Your task to perform on an android device: Is it going to rain this weekend? Image 0: 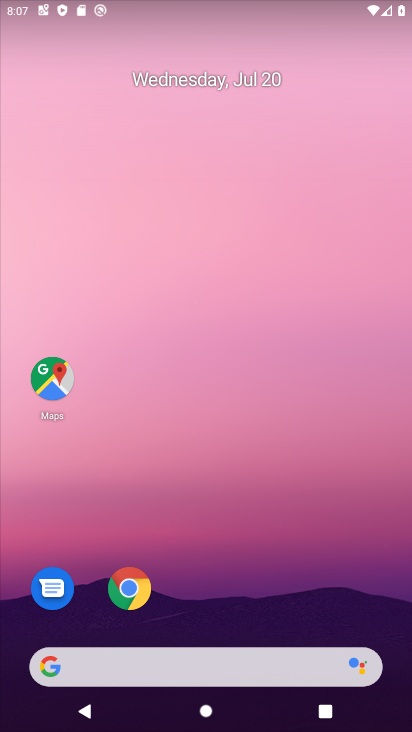
Step 0: click (135, 663)
Your task to perform on an android device: Is it going to rain this weekend? Image 1: 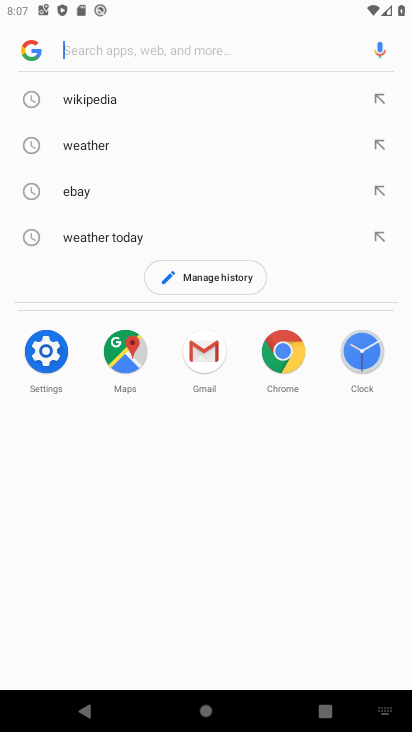
Step 1: type "Is it going to rain this weekend?"
Your task to perform on an android device: Is it going to rain this weekend? Image 2: 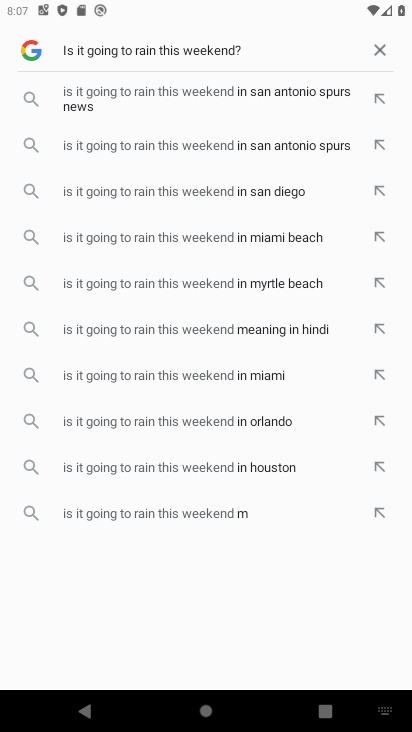
Step 2: press enter
Your task to perform on an android device: Is it going to rain this weekend? Image 3: 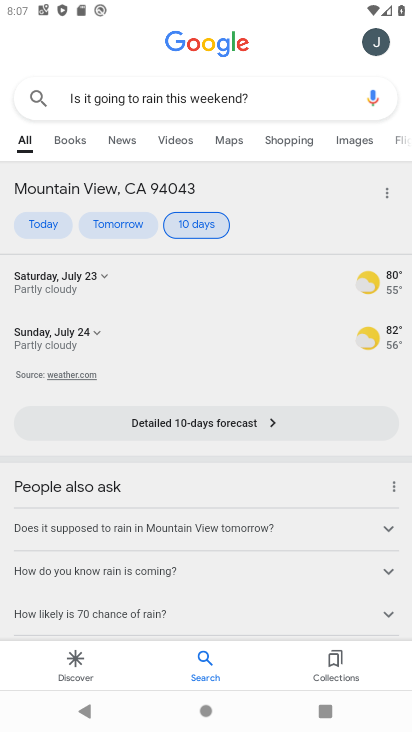
Step 3: task complete